Your task to perform on an android device: Open privacy settings Image 0: 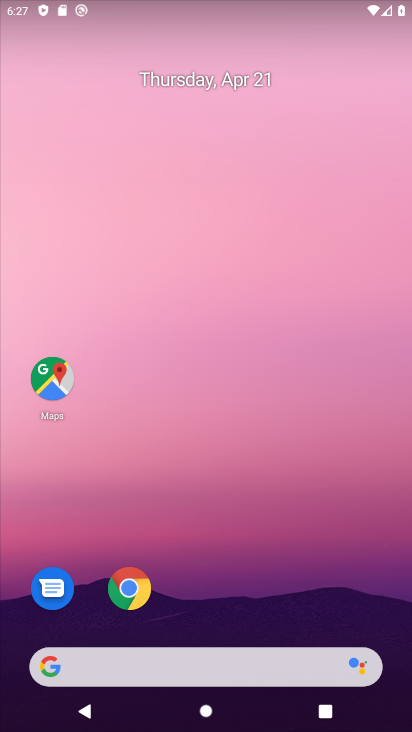
Step 0: drag from (195, 580) to (176, 161)
Your task to perform on an android device: Open privacy settings Image 1: 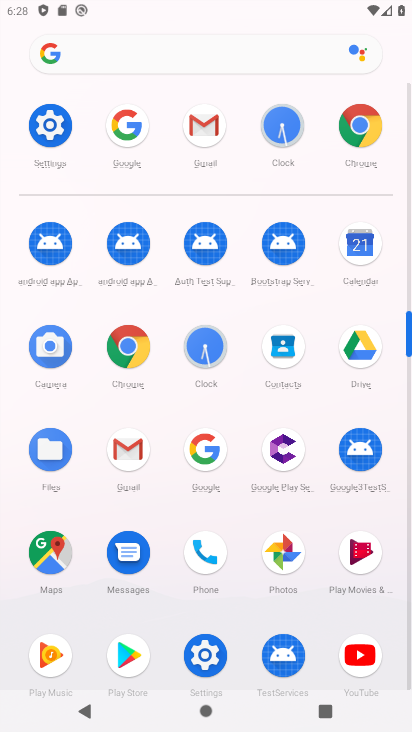
Step 1: click (48, 117)
Your task to perform on an android device: Open privacy settings Image 2: 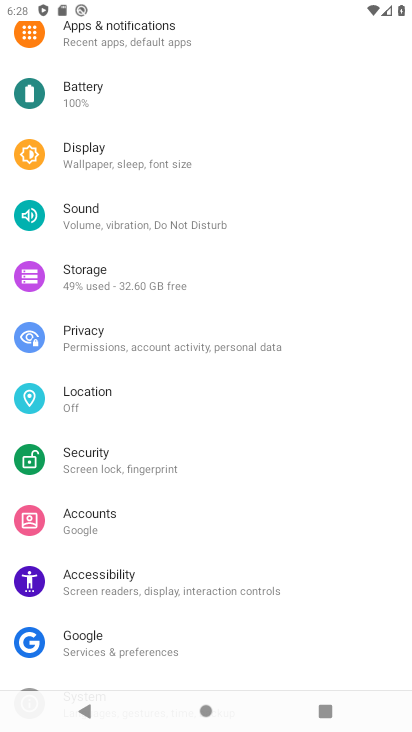
Step 2: click (101, 356)
Your task to perform on an android device: Open privacy settings Image 3: 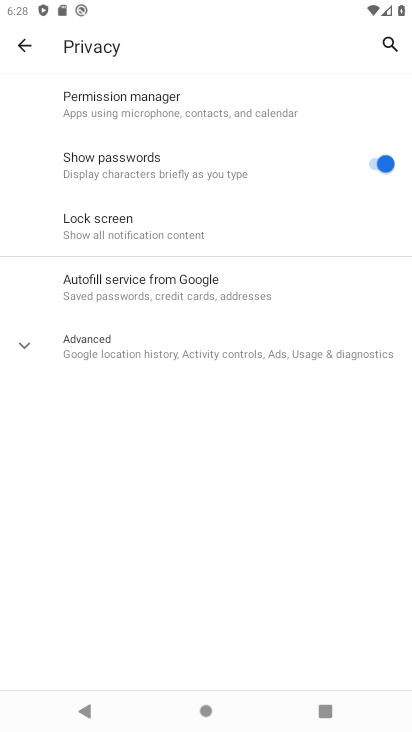
Step 3: task complete